Your task to perform on an android device: What's on the menu at IHOP? Image 0: 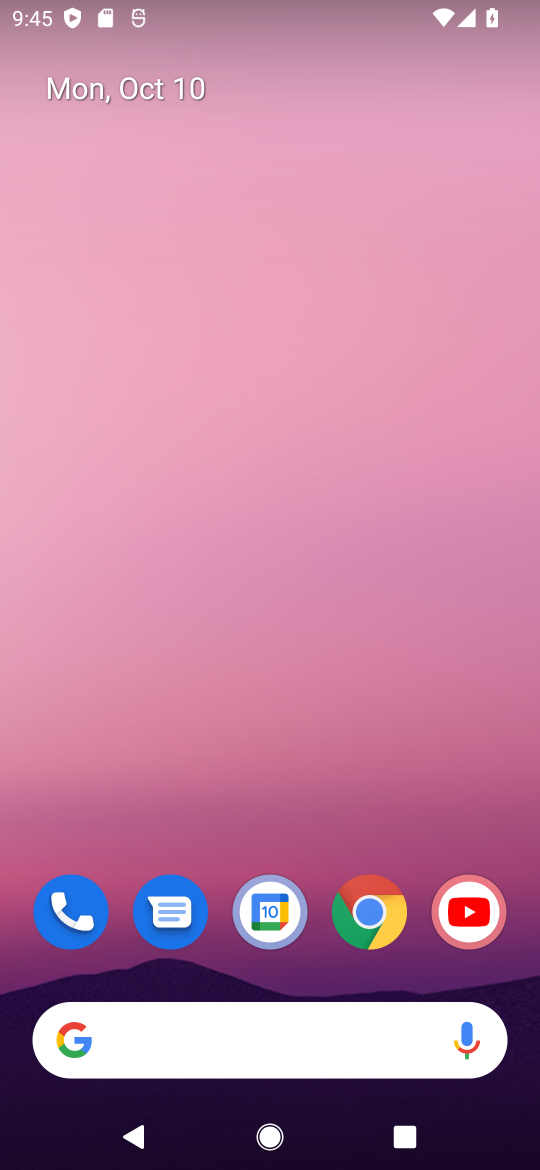
Step 0: click (61, 1058)
Your task to perform on an android device: What's on the menu at IHOP? Image 1: 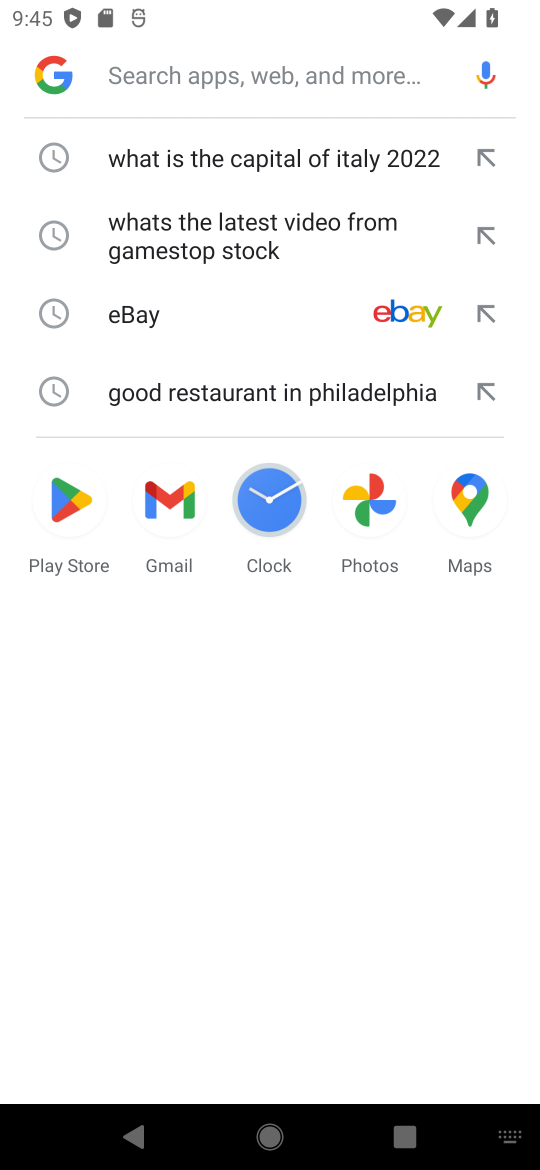
Step 1: click (188, 89)
Your task to perform on an android device: What's on the menu at IHOP? Image 2: 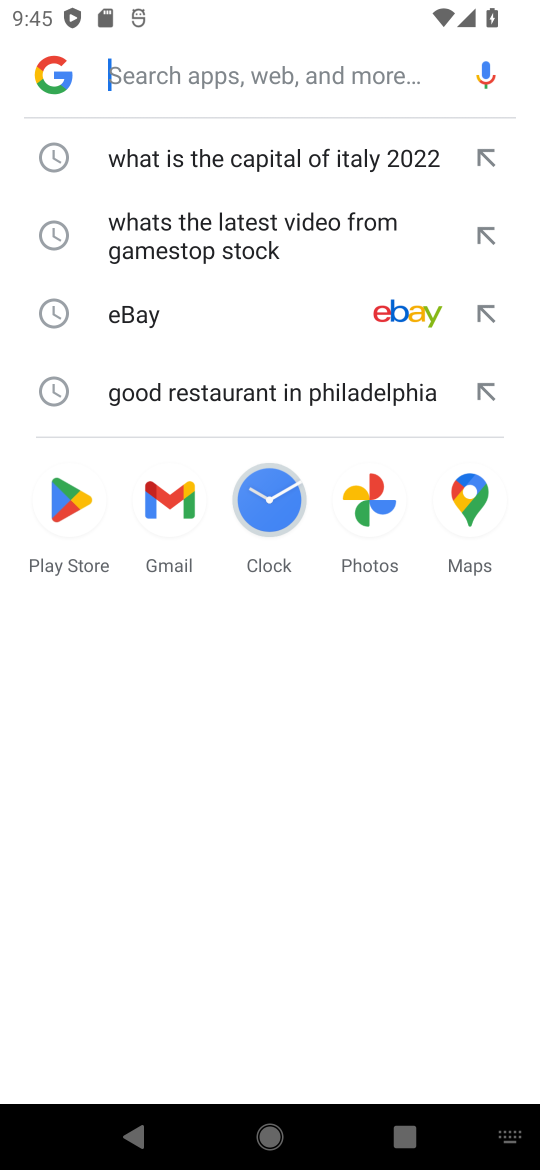
Step 2: type "menu at IHOP?"
Your task to perform on an android device: What's on the menu at IHOP? Image 3: 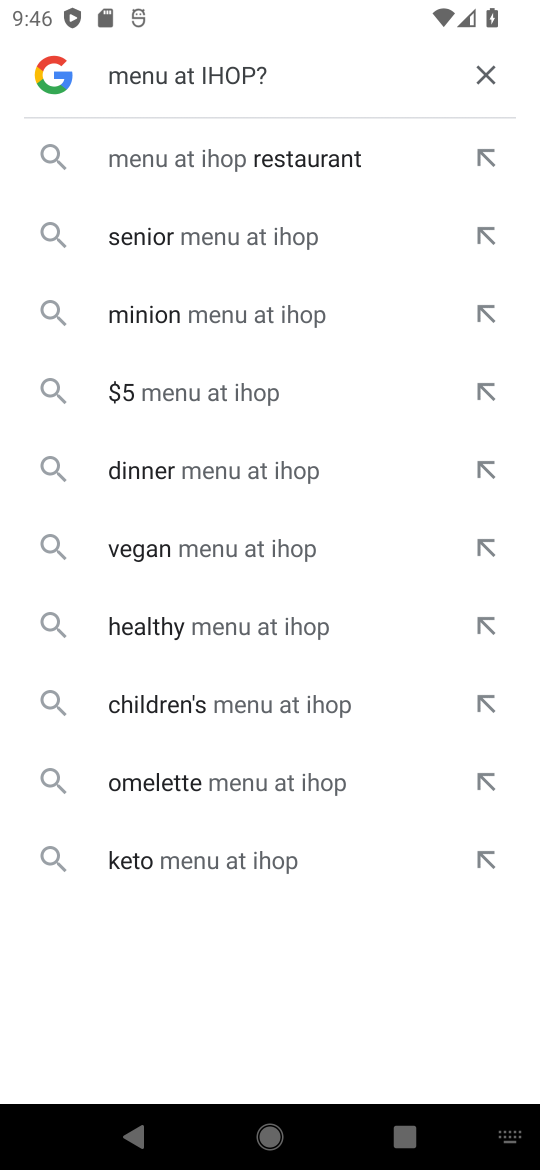
Step 3: click (214, 161)
Your task to perform on an android device: What's on the menu at IHOP? Image 4: 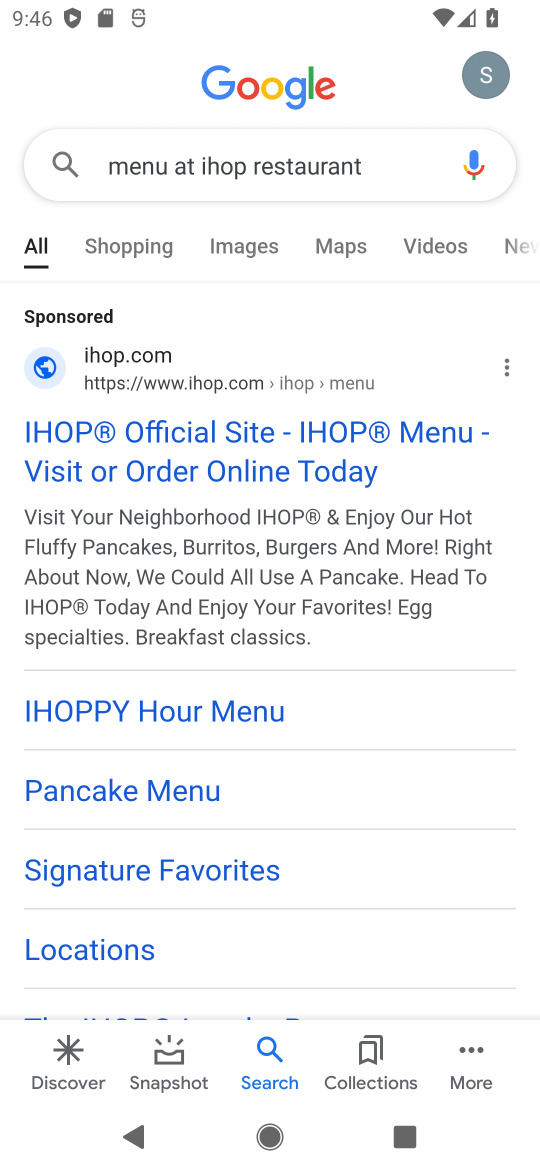
Step 4: click (209, 442)
Your task to perform on an android device: What's on the menu at IHOP? Image 5: 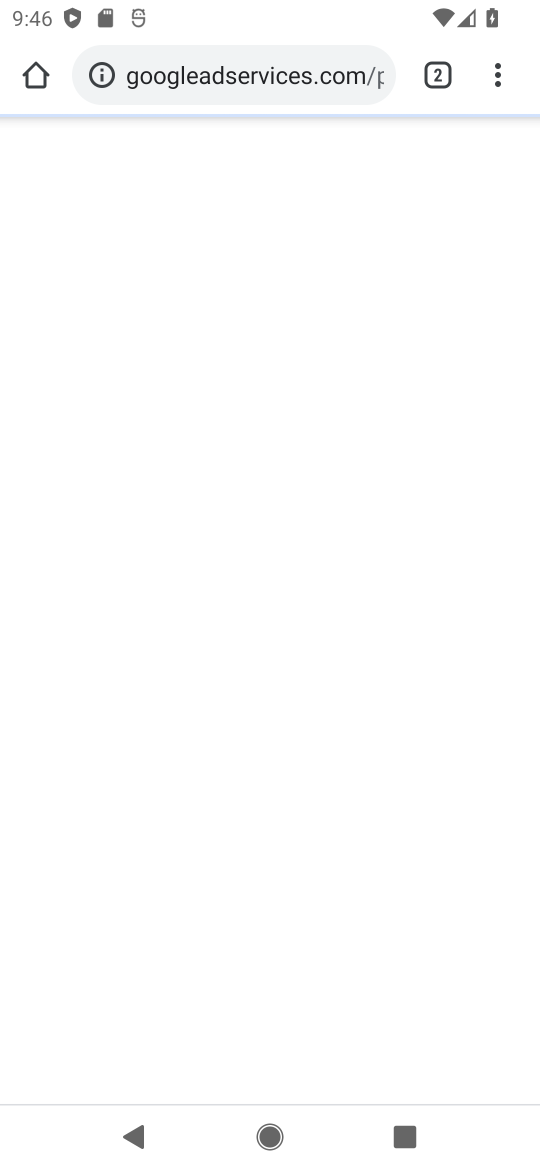
Step 5: task complete